Your task to perform on an android device: open the mobile data screen to see how much data has been used Image 0: 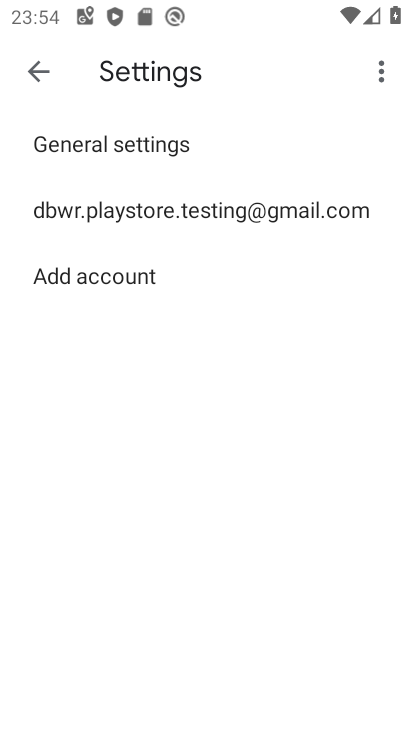
Step 0: press home button
Your task to perform on an android device: open the mobile data screen to see how much data has been used Image 1: 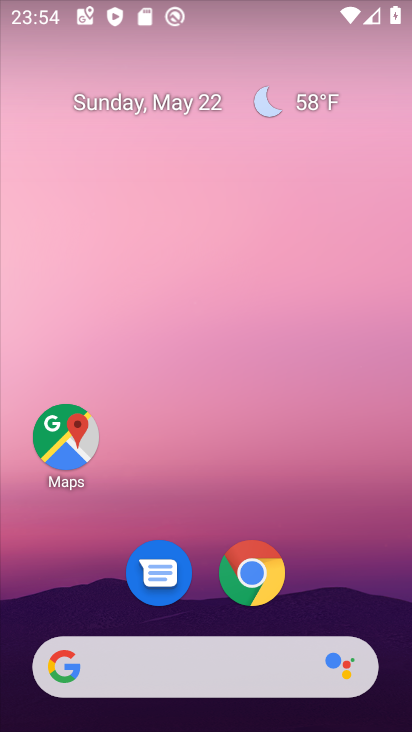
Step 1: drag from (196, 624) to (233, 17)
Your task to perform on an android device: open the mobile data screen to see how much data has been used Image 2: 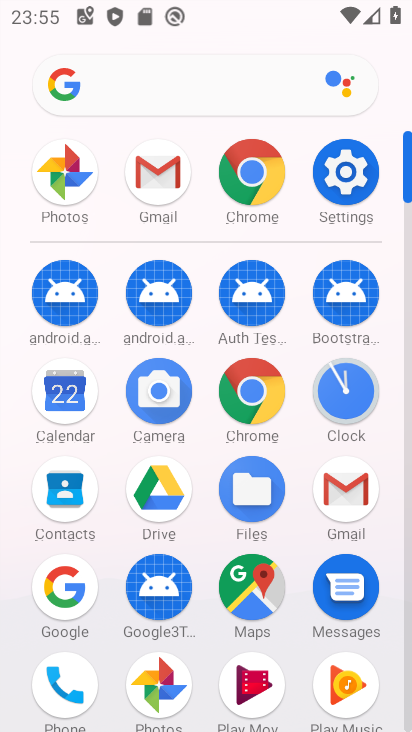
Step 2: click (369, 175)
Your task to perform on an android device: open the mobile data screen to see how much data has been used Image 3: 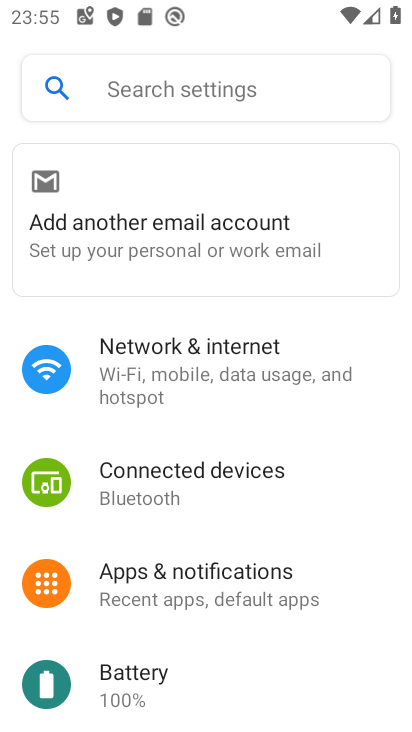
Step 3: click (196, 387)
Your task to perform on an android device: open the mobile data screen to see how much data has been used Image 4: 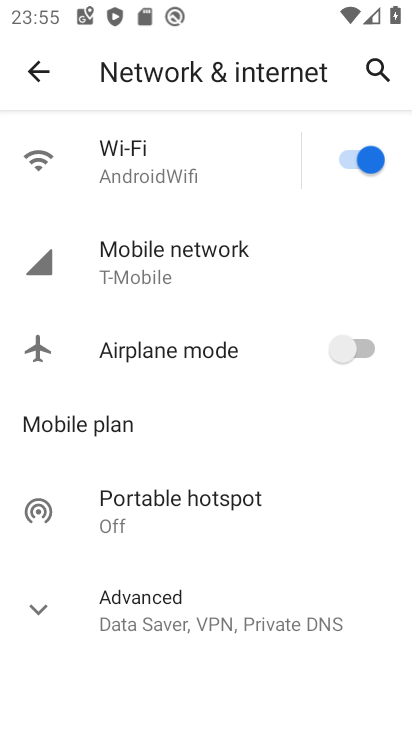
Step 4: click (180, 267)
Your task to perform on an android device: open the mobile data screen to see how much data has been used Image 5: 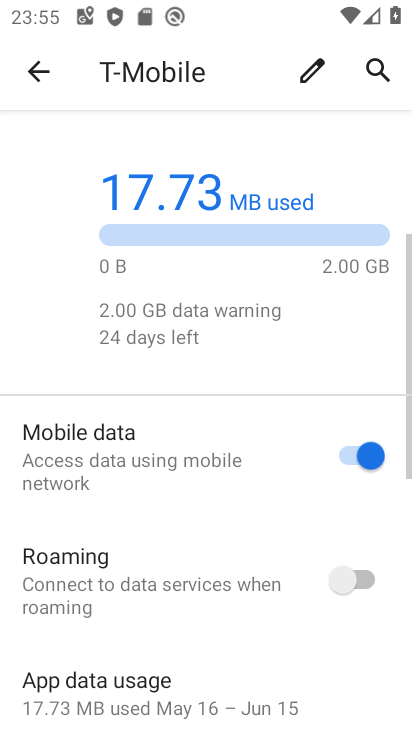
Step 5: drag from (177, 599) to (230, 202)
Your task to perform on an android device: open the mobile data screen to see how much data has been used Image 6: 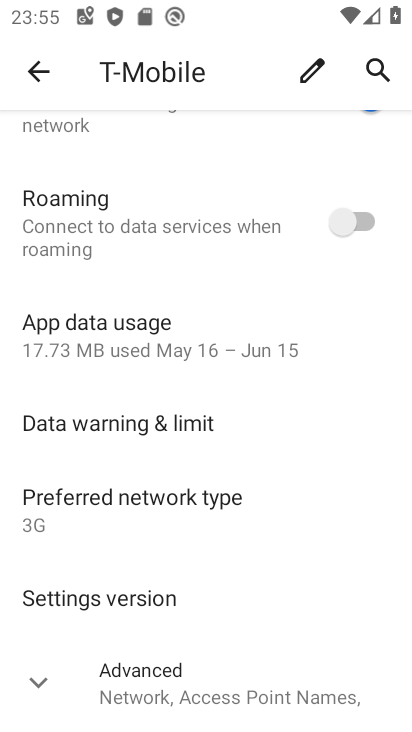
Step 6: click (144, 350)
Your task to perform on an android device: open the mobile data screen to see how much data has been used Image 7: 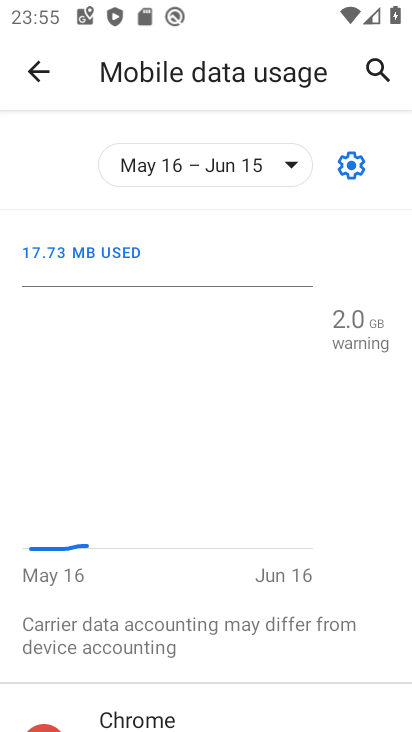
Step 7: task complete